Your task to perform on an android device: toggle translation in the chrome app Image 0: 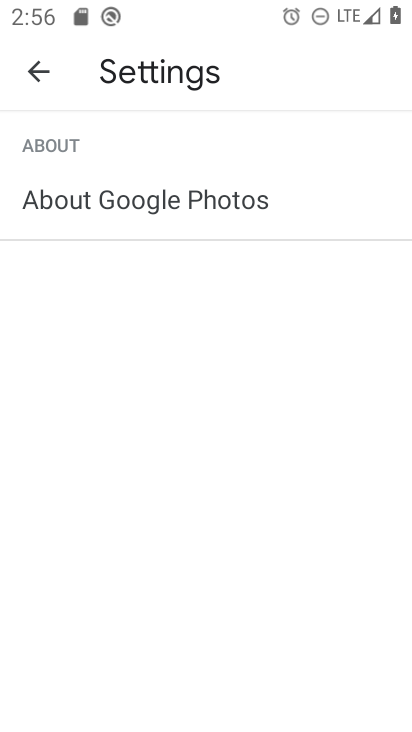
Step 0: press home button
Your task to perform on an android device: toggle translation in the chrome app Image 1: 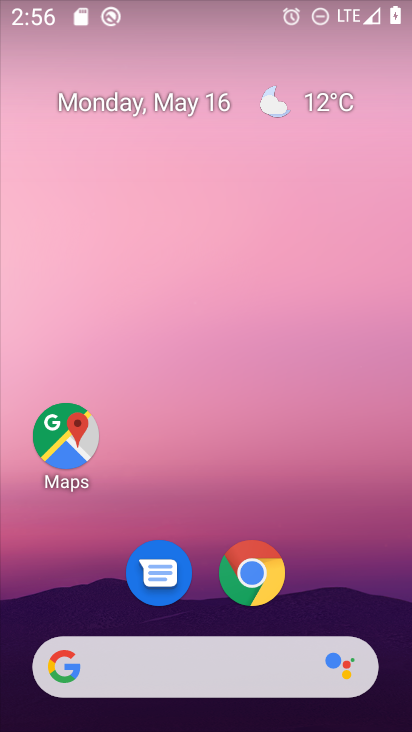
Step 1: click (259, 564)
Your task to perform on an android device: toggle translation in the chrome app Image 2: 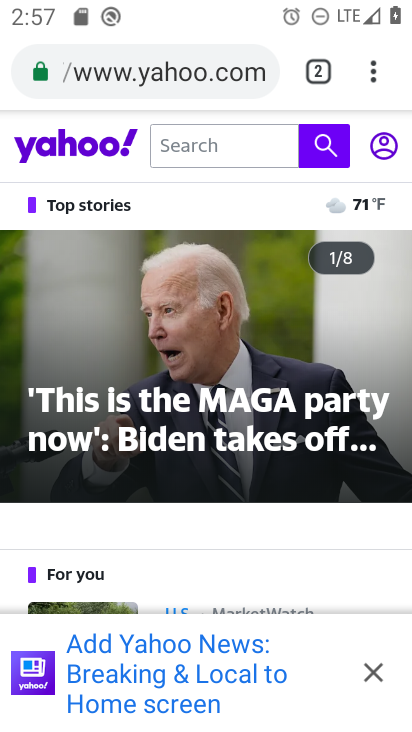
Step 2: drag from (372, 72) to (133, 570)
Your task to perform on an android device: toggle translation in the chrome app Image 3: 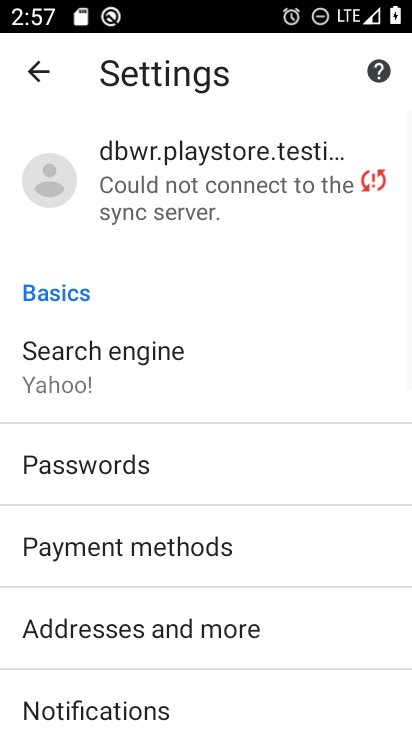
Step 3: drag from (140, 594) to (93, 28)
Your task to perform on an android device: toggle translation in the chrome app Image 4: 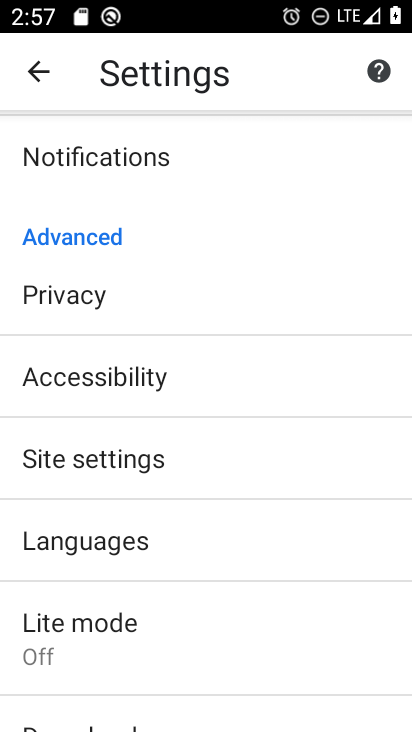
Step 4: click (150, 567)
Your task to perform on an android device: toggle translation in the chrome app Image 5: 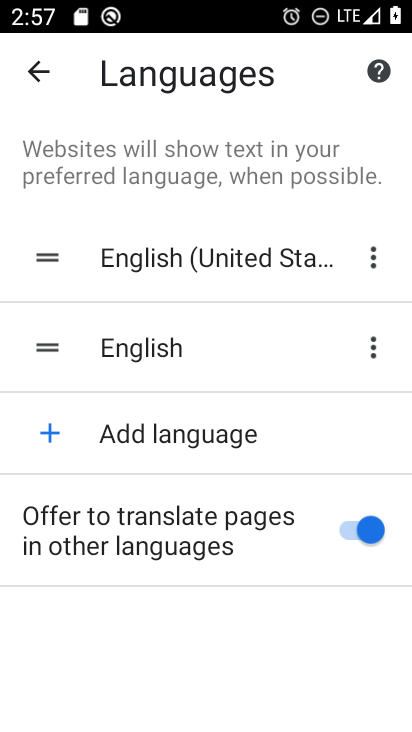
Step 5: click (368, 549)
Your task to perform on an android device: toggle translation in the chrome app Image 6: 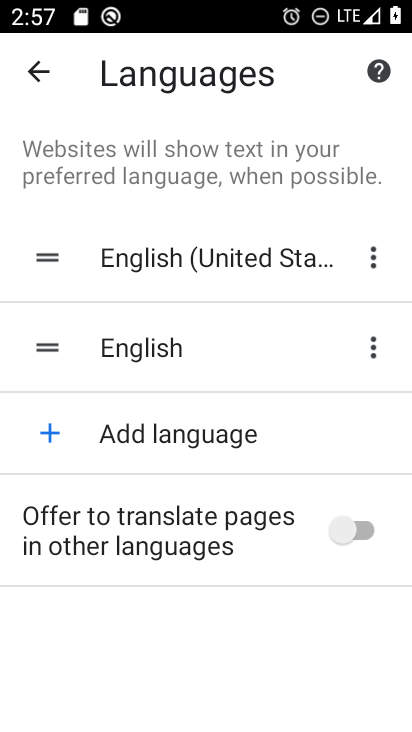
Step 6: task complete